Your task to perform on an android device: turn on bluetooth scan Image 0: 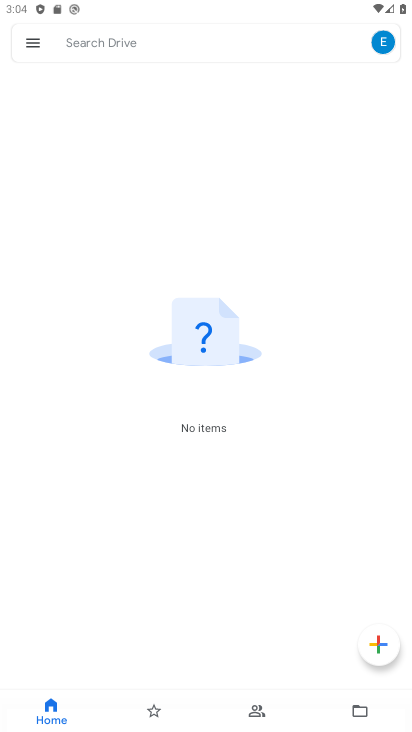
Step 0: press home button
Your task to perform on an android device: turn on bluetooth scan Image 1: 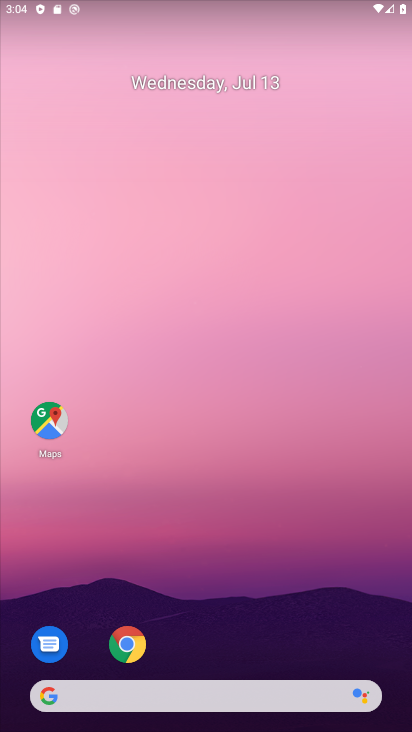
Step 1: drag from (241, 704) to (221, 287)
Your task to perform on an android device: turn on bluetooth scan Image 2: 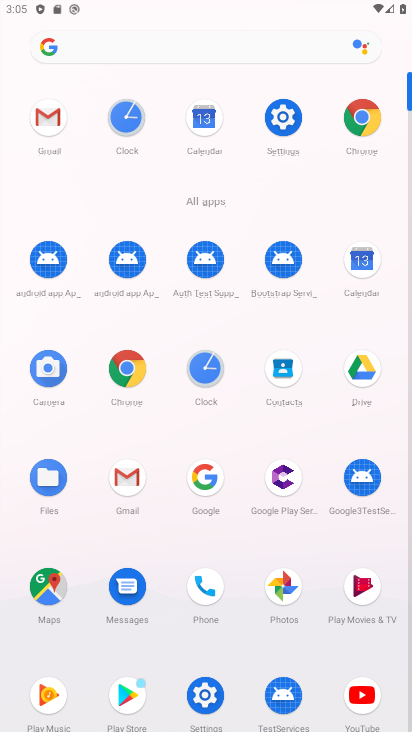
Step 2: click (203, 695)
Your task to perform on an android device: turn on bluetooth scan Image 3: 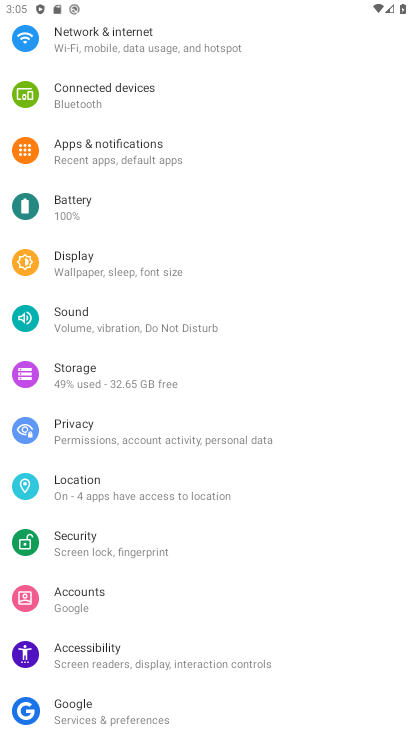
Step 3: click (127, 483)
Your task to perform on an android device: turn on bluetooth scan Image 4: 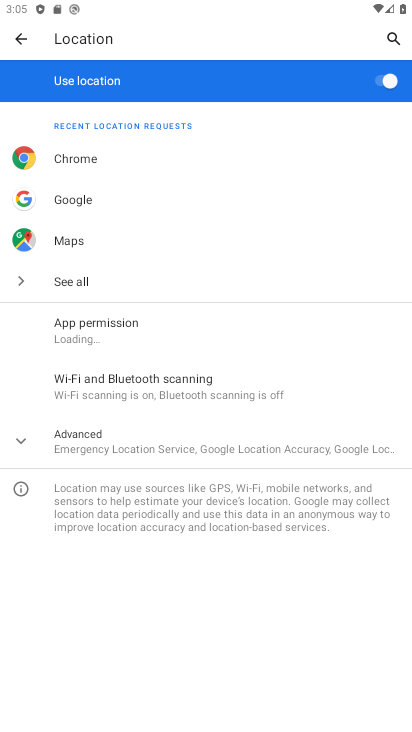
Step 4: click (233, 391)
Your task to perform on an android device: turn on bluetooth scan Image 5: 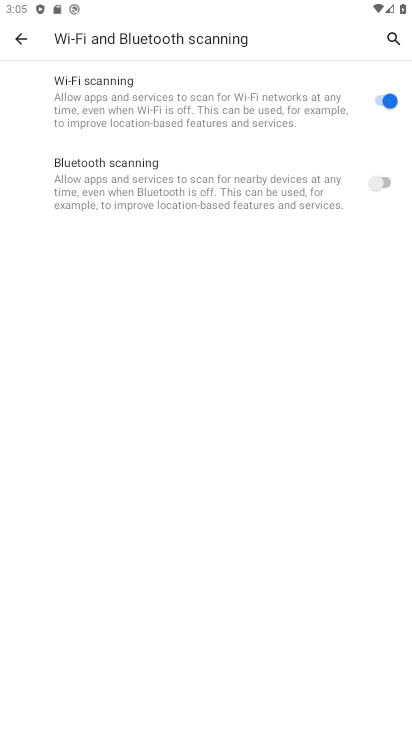
Step 5: click (383, 185)
Your task to perform on an android device: turn on bluetooth scan Image 6: 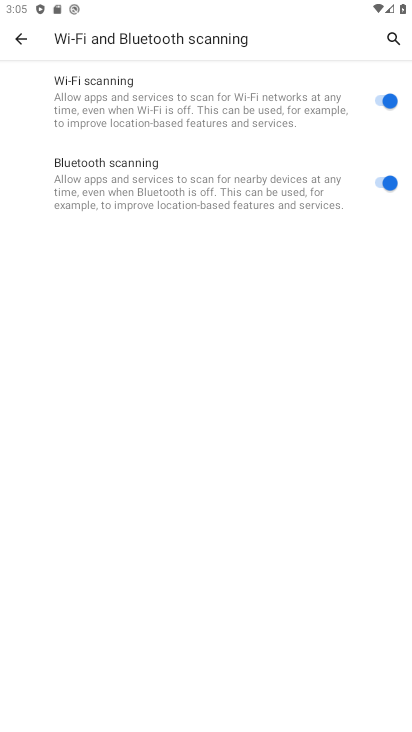
Step 6: task complete